Your task to perform on an android device: What is the recent news? Image 0: 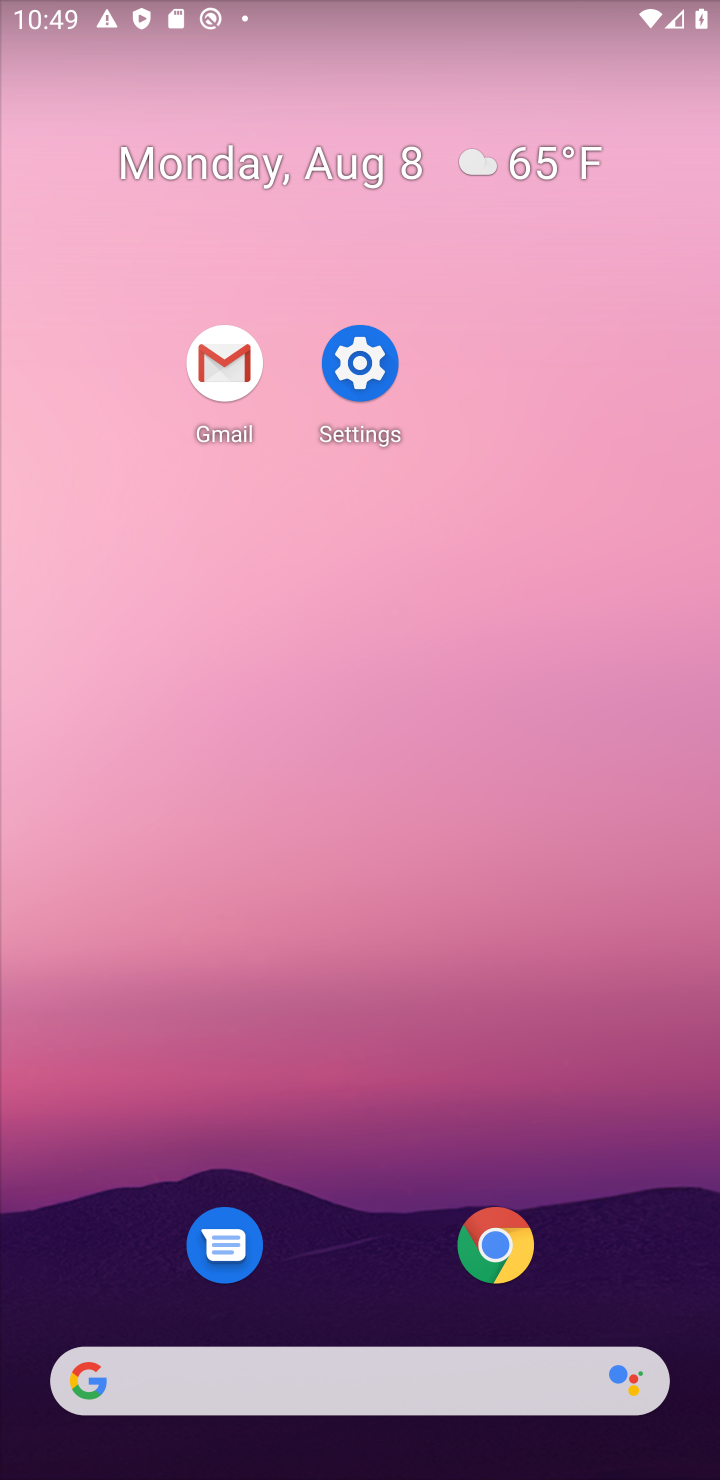
Step 0: drag from (300, 1100) to (291, 171)
Your task to perform on an android device: What is the recent news? Image 1: 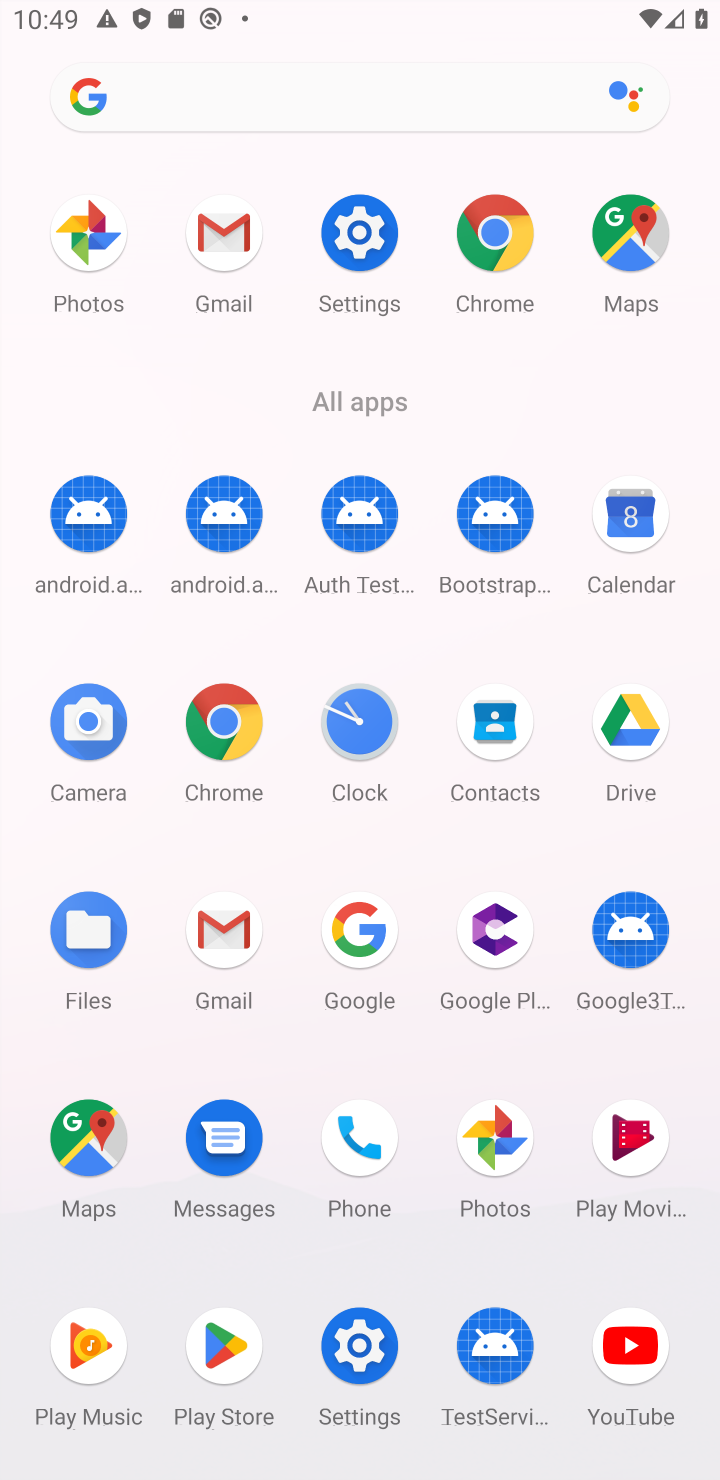
Step 1: drag from (369, 938) to (121, 686)
Your task to perform on an android device: What is the recent news? Image 2: 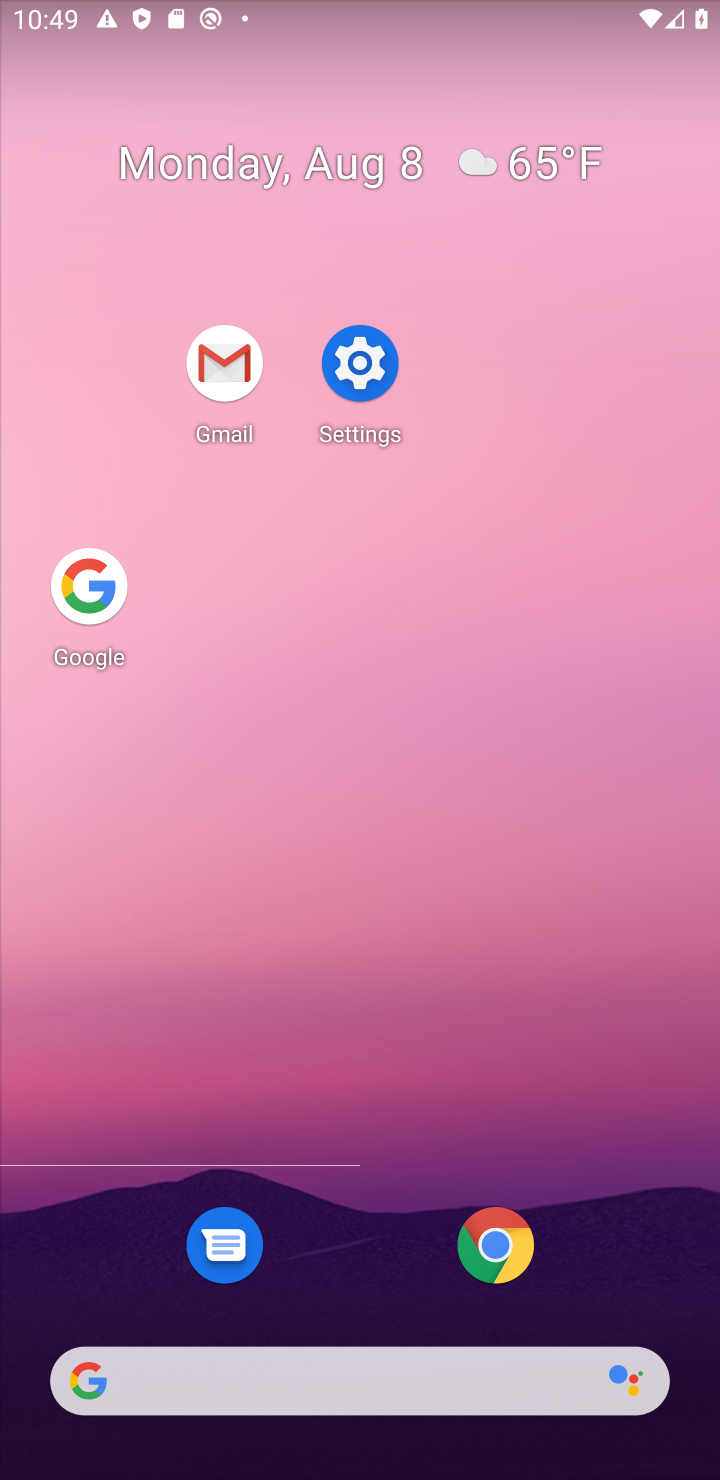
Step 2: click (105, 575)
Your task to perform on an android device: What is the recent news? Image 3: 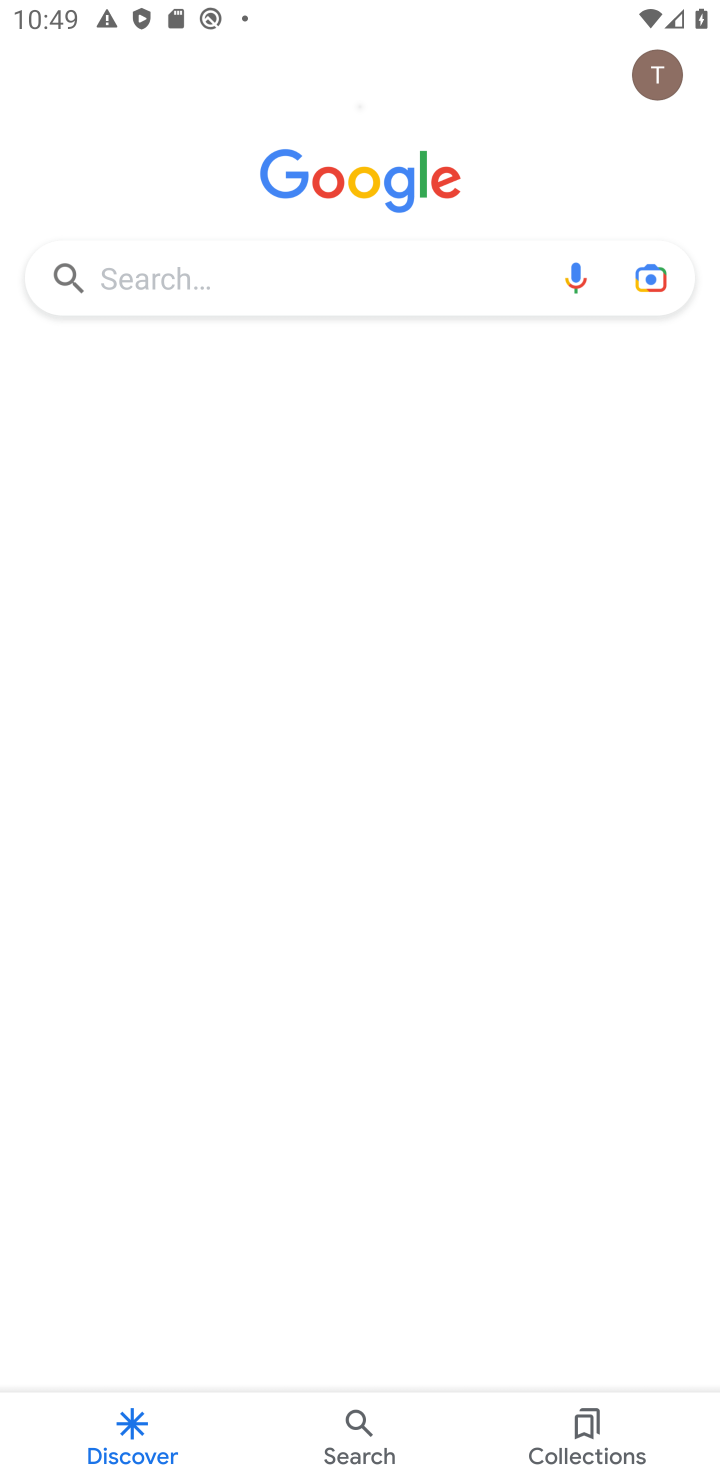
Step 3: click (302, 274)
Your task to perform on an android device: What is the recent news? Image 4: 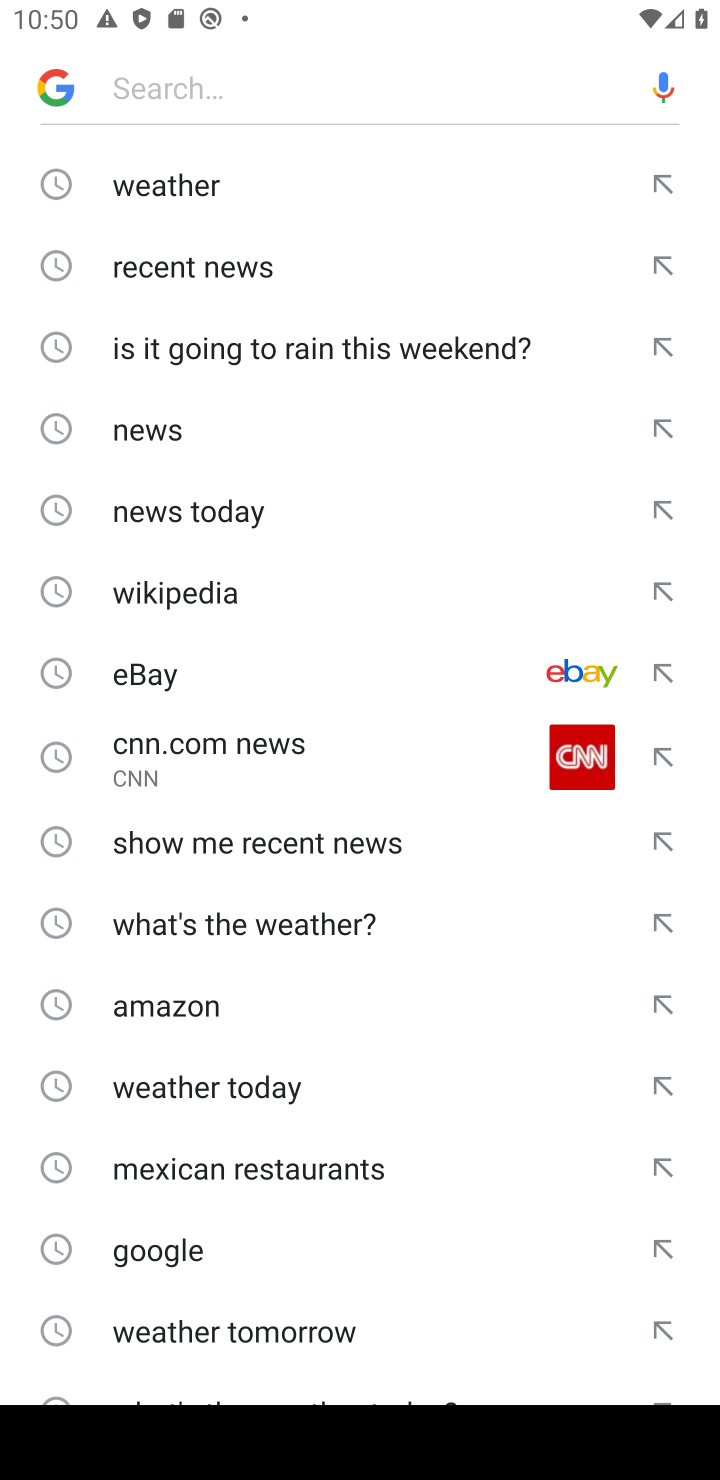
Step 4: click (302, 274)
Your task to perform on an android device: What is the recent news? Image 5: 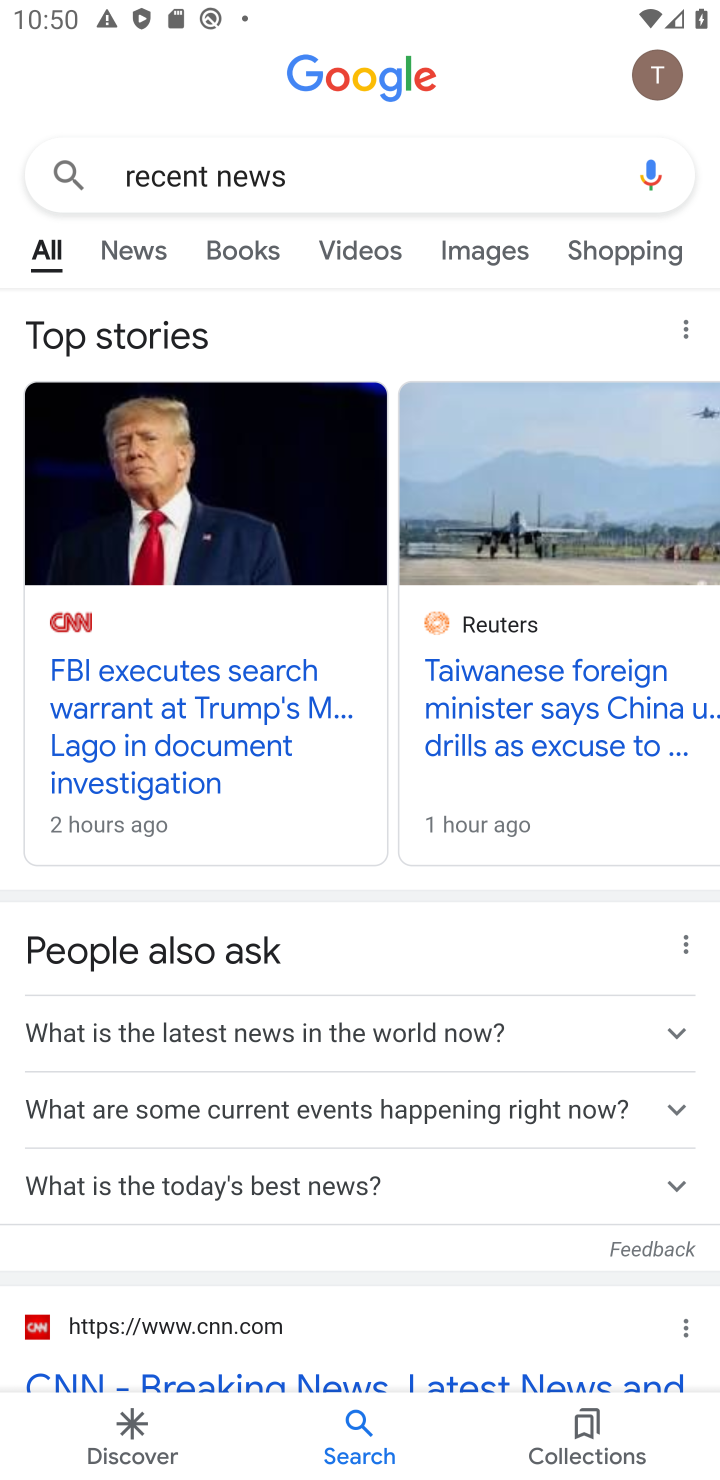
Step 5: task complete